Your task to perform on an android device: check out phone information Image 0: 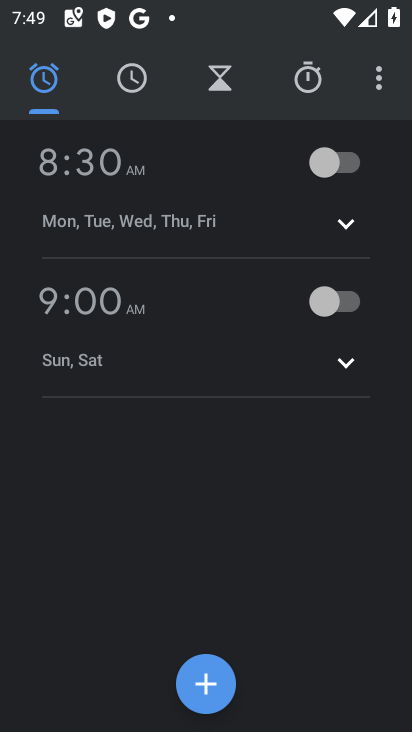
Step 0: press home button
Your task to perform on an android device: check out phone information Image 1: 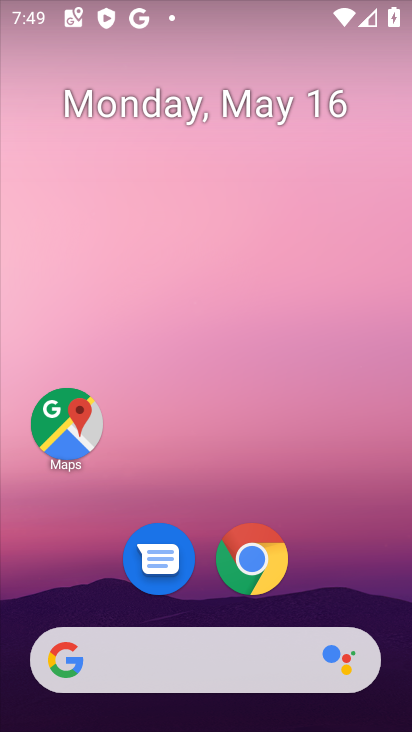
Step 1: drag from (387, 566) to (332, 164)
Your task to perform on an android device: check out phone information Image 2: 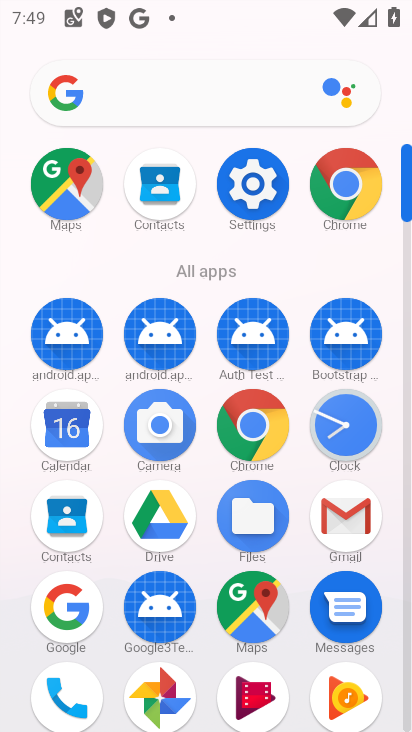
Step 2: drag from (195, 628) to (228, 294)
Your task to perform on an android device: check out phone information Image 3: 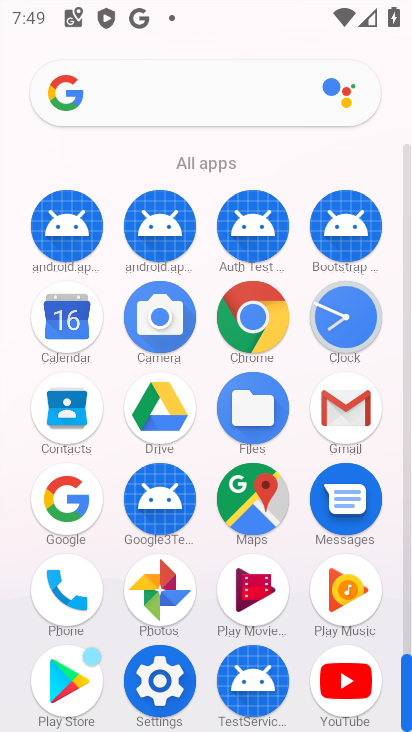
Step 3: click (50, 613)
Your task to perform on an android device: check out phone information Image 4: 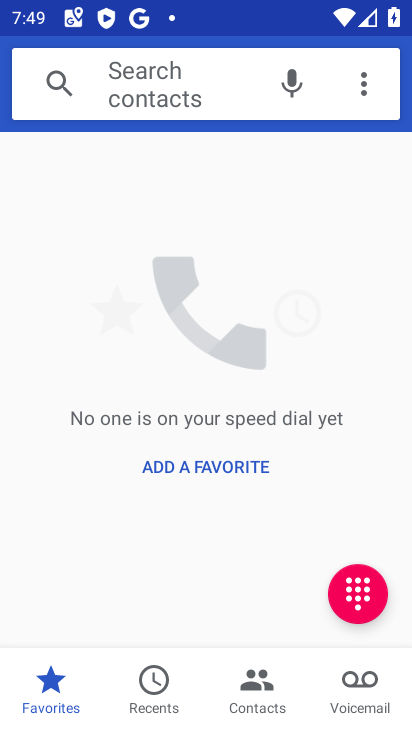
Step 4: task complete